Your task to perform on an android device: Go to settings Image 0: 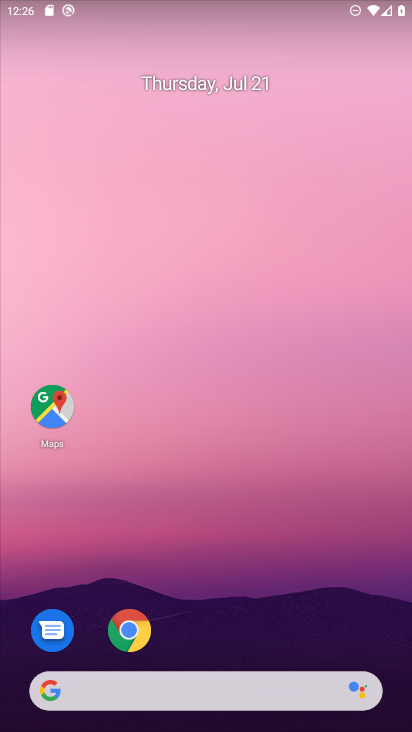
Step 0: click (266, 78)
Your task to perform on an android device: Go to settings Image 1: 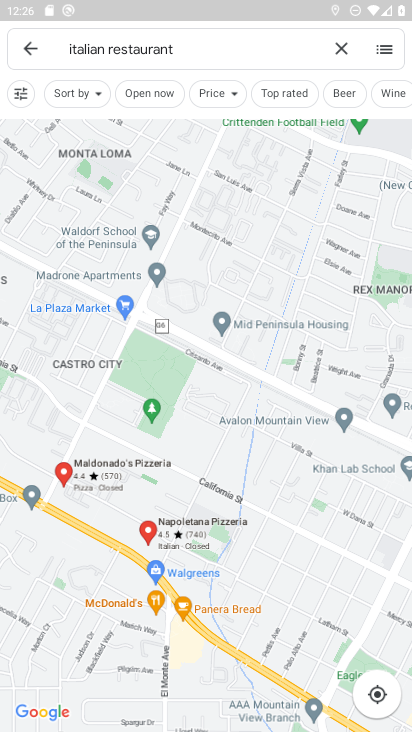
Step 1: press home button
Your task to perform on an android device: Go to settings Image 2: 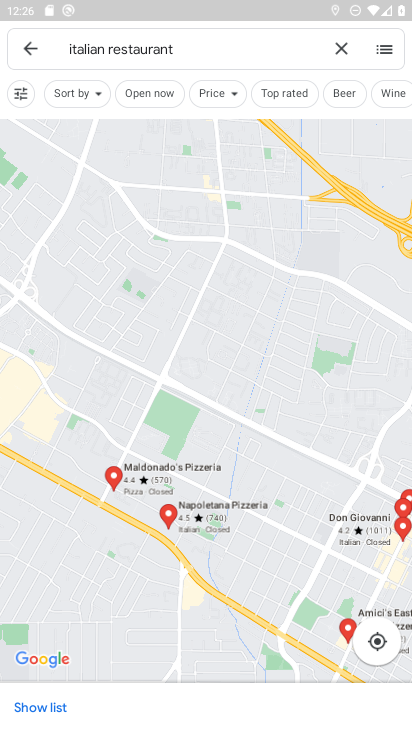
Step 2: drag from (209, 681) to (270, 100)
Your task to perform on an android device: Go to settings Image 3: 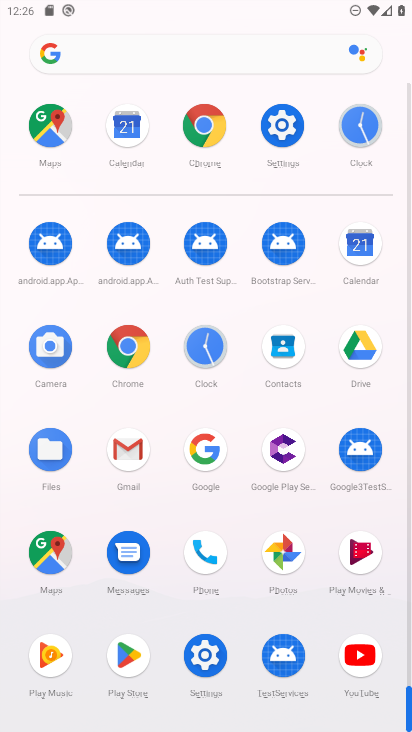
Step 3: click (202, 657)
Your task to perform on an android device: Go to settings Image 4: 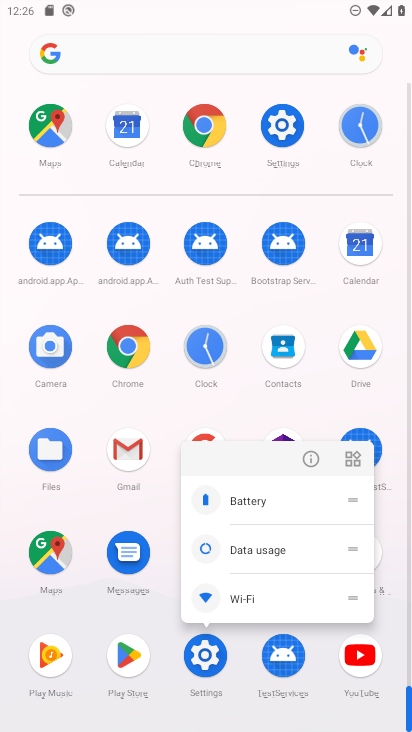
Step 4: click (309, 453)
Your task to perform on an android device: Go to settings Image 5: 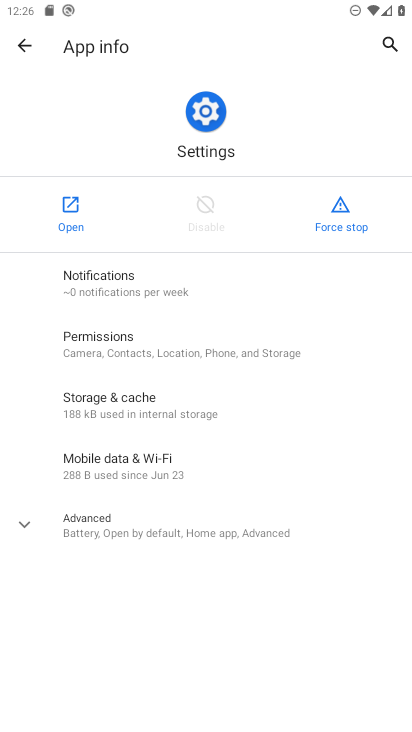
Step 5: click (70, 196)
Your task to perform on an android device: Go to settings Image 6: 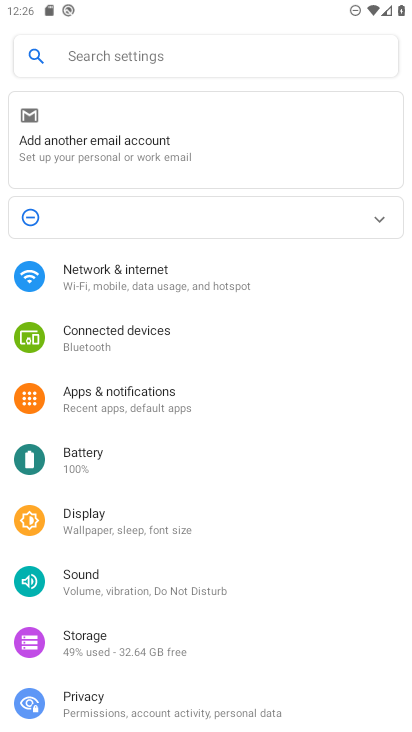
Step 6: task complete